Your task to perform on an android device: turn off translation in the chrome app Image 0: 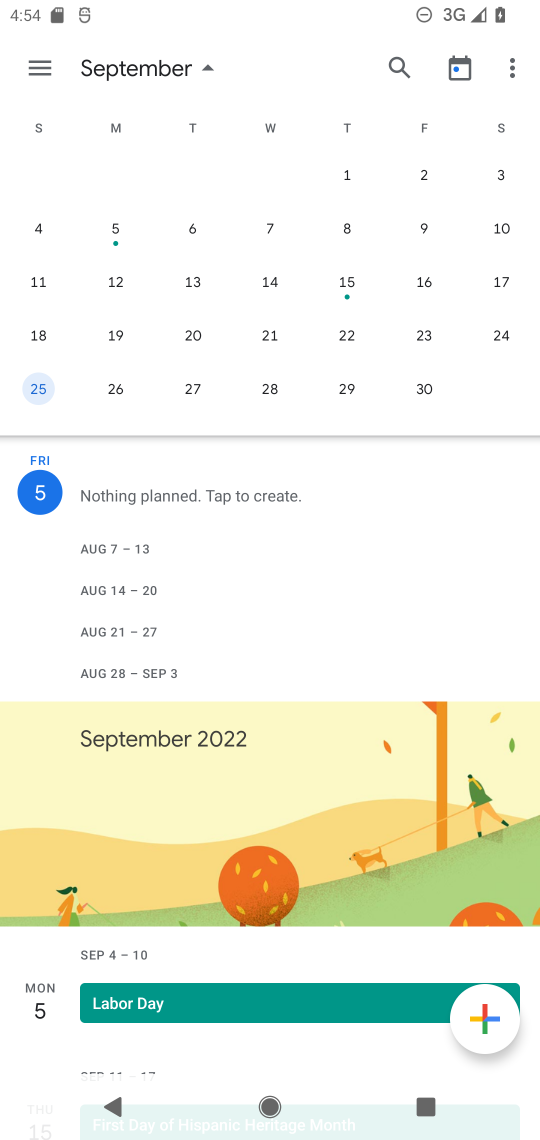
Step 0: press home button
Your task to perform on an android device: turn off translation in the chrome app Image 1: 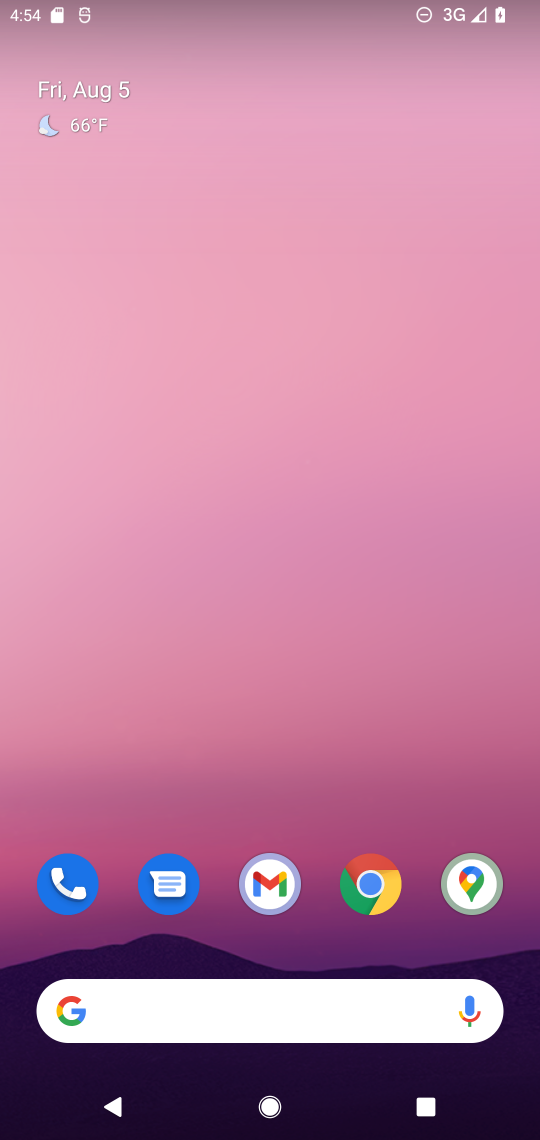
Step 1: drag from (469, 927) to (178, 70)
Your task to perform on an android device: turn off translation in the chrome app Image 2: 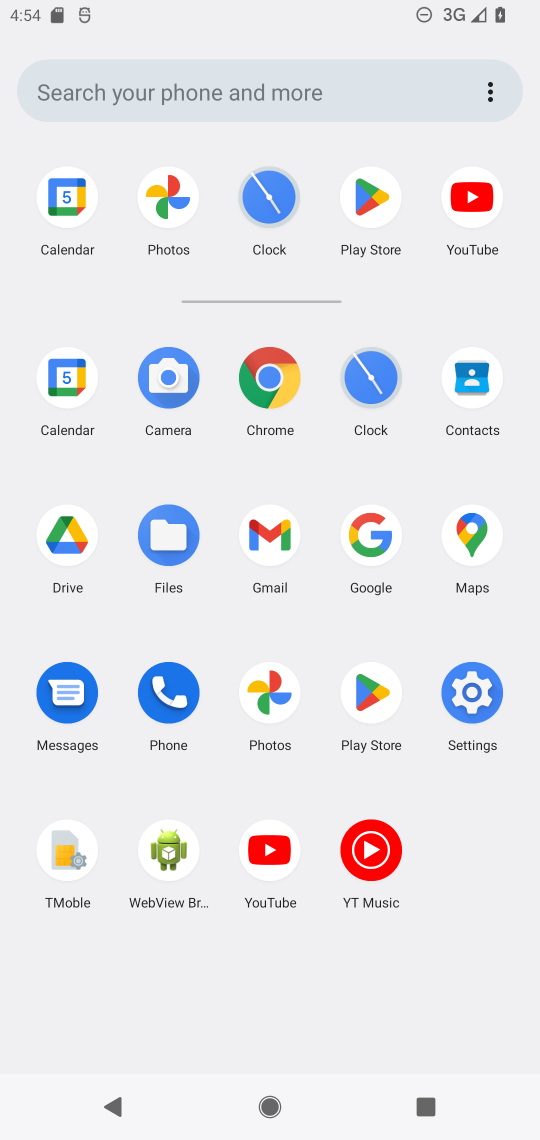
Step 2: click (263, 374)
Your task to perform on an android device: turn off translation in the chrome app Image 3: 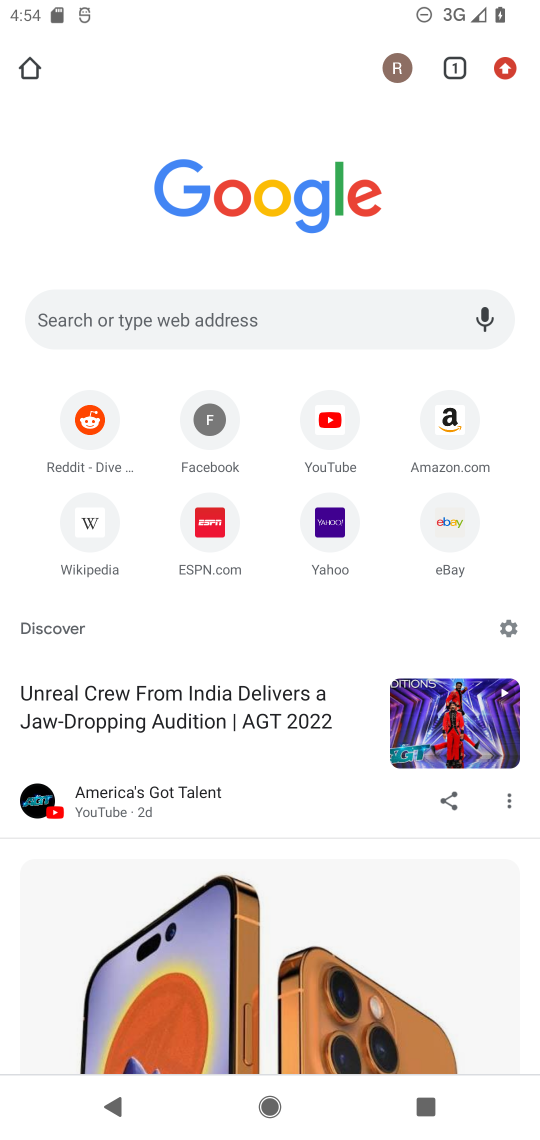
Step 3: click (499, 56)
Your task to perform on an android device: turn off translation in the chrome app Image 4: 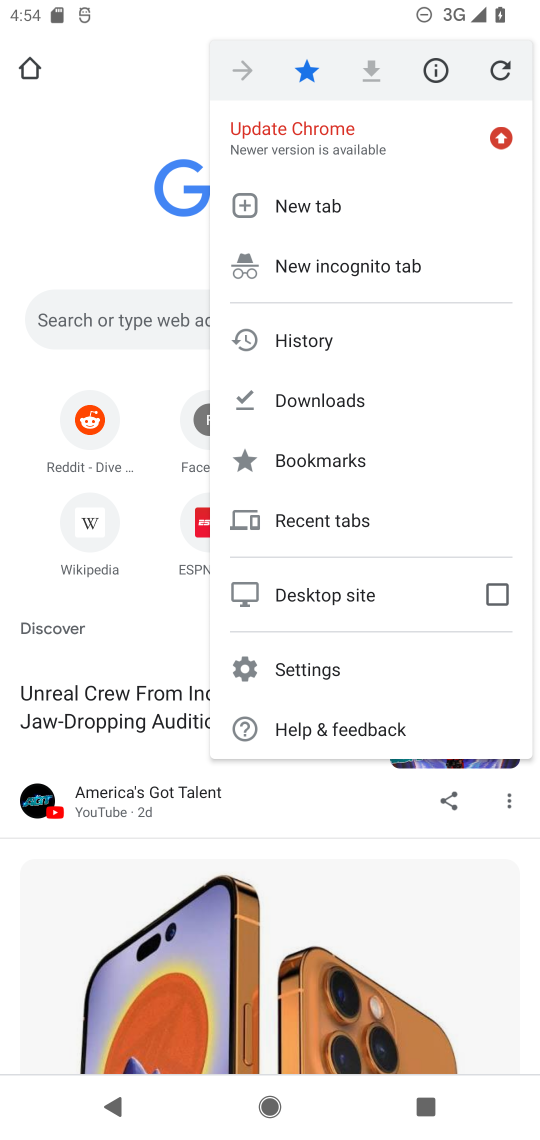
Step 4: click (317, 673)
Your task to perform on an android device: turn off translation in the chrome app Image 5: 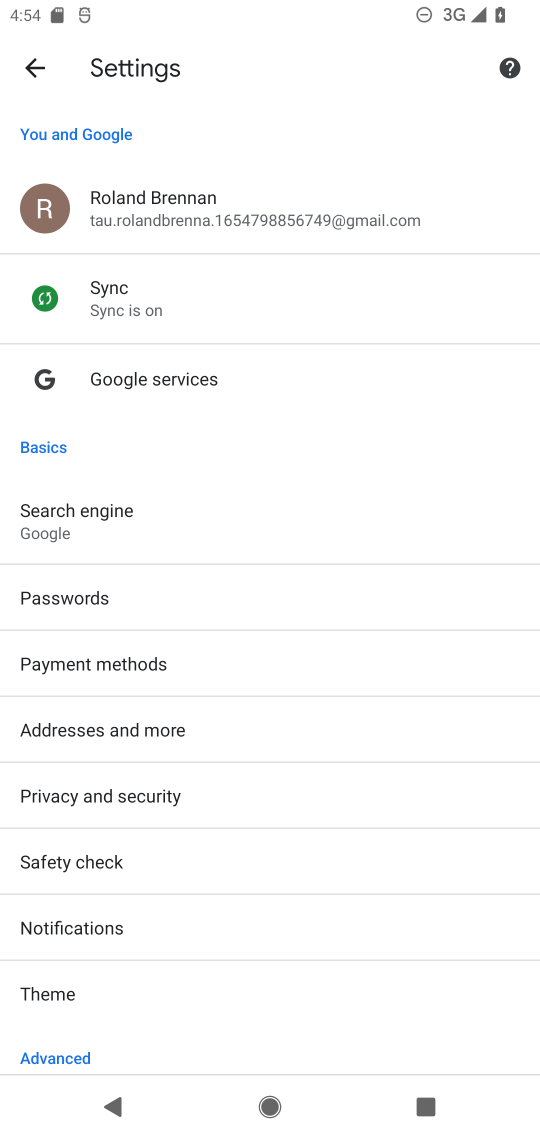
Step 5: drag from (157, 978) to (119, 296)
Your task to perform on an android device: turn off translation in the chrome app Image 6: 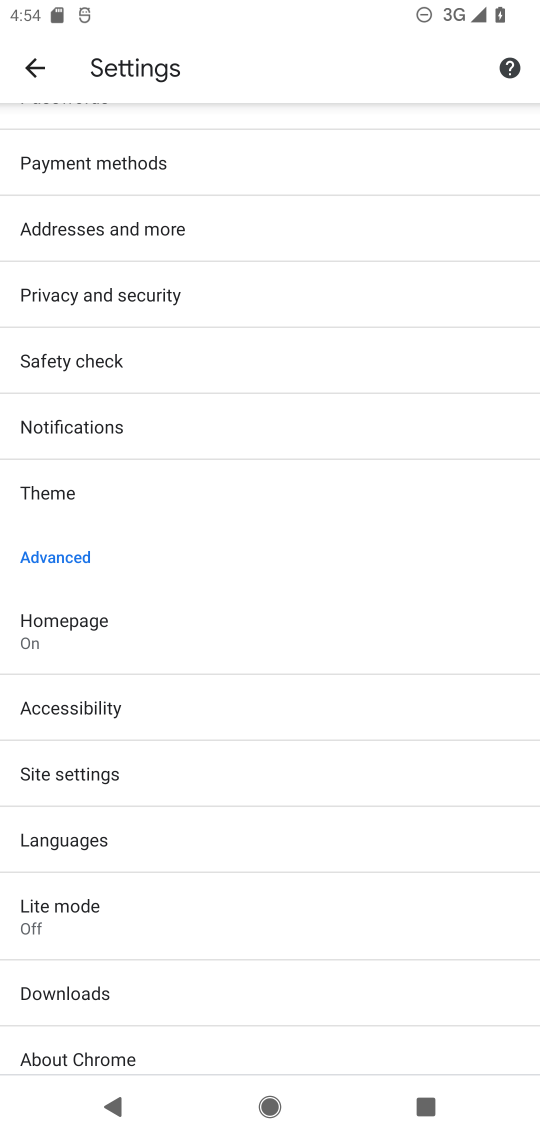
Step 6: click (100, 843)
Your task to perform on an android device: turn off translation in the chrome app Image 7: 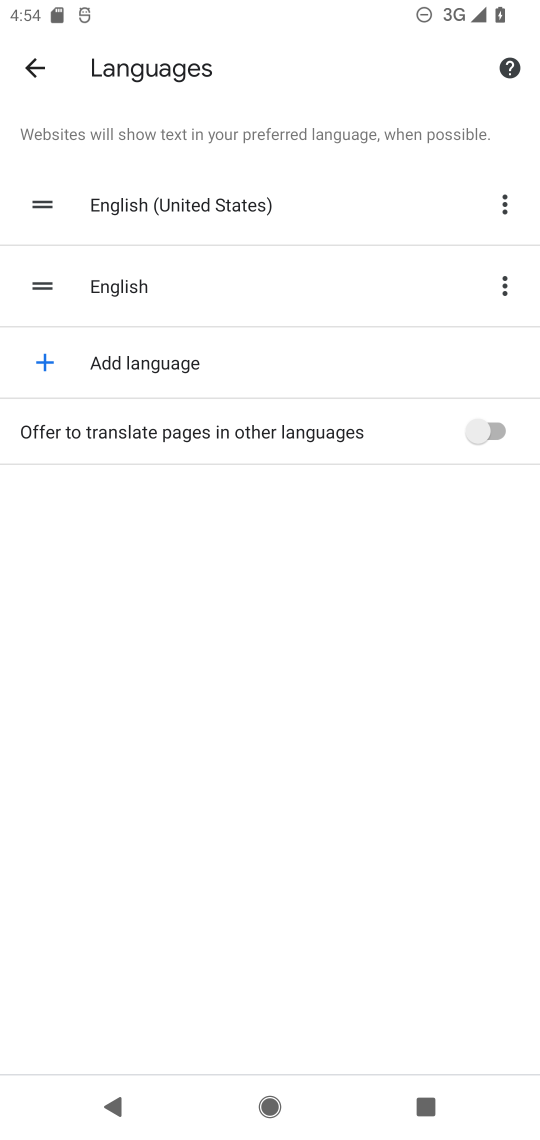
Step 7: task complete